Your task to perform on an android device: Find coffee shops on Maps Image 0: 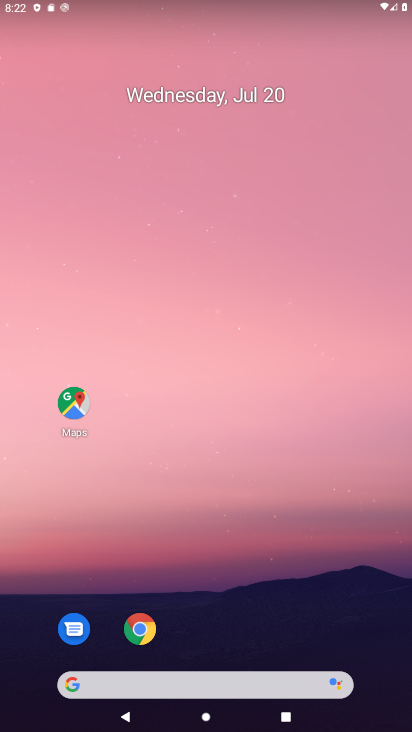
Step 0: drag from (243, 698) to (160, 150)
Your task to perform on an android device: Find coffee shops on Maps Image 1: 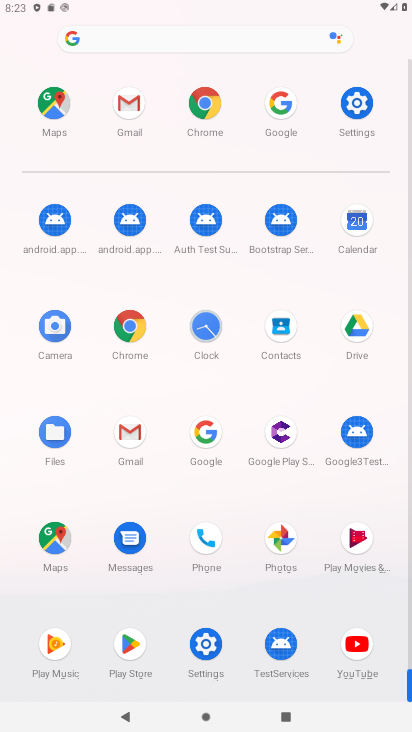
Step 1: click (57, 534)
Your task to perform on an android device: Find coffee shops on Maps Image 2: 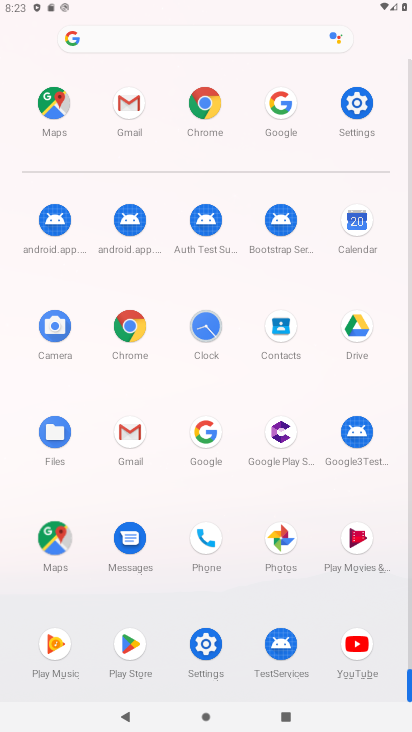
Step 2: click (58, 545)
Your task to perform on an android device: Find coffee shops on Maps Image 3: 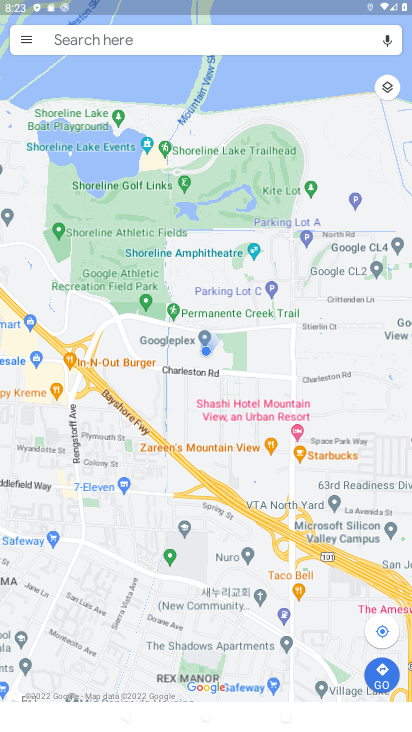
Step 3: click (100, 42)
Your task to perform on an android device: Find coffee shops on Maps Image 4: 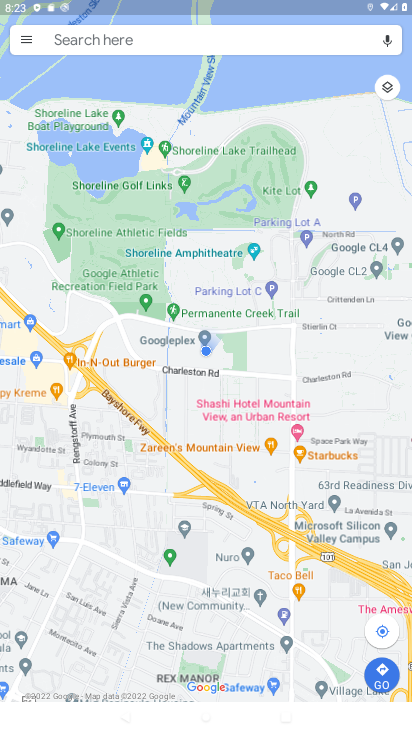
Step 4: click (101, 48)
Your task to perform on an android device: Find coffee shops on Maps Image 5: 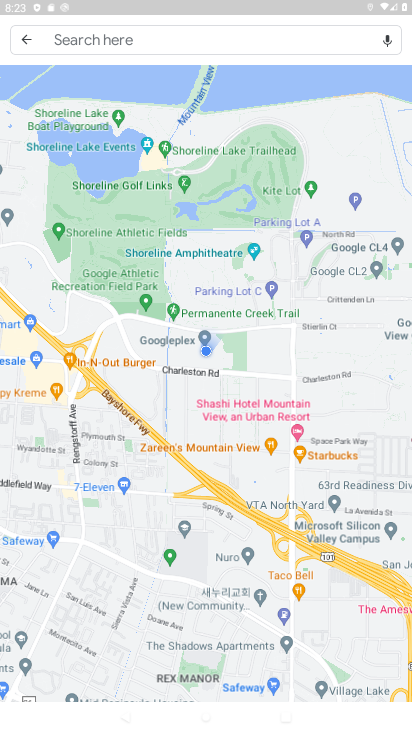
Step 5: click (91, 27)
Your task to perform on an android device: Find coffee shops on Maps Image 6: 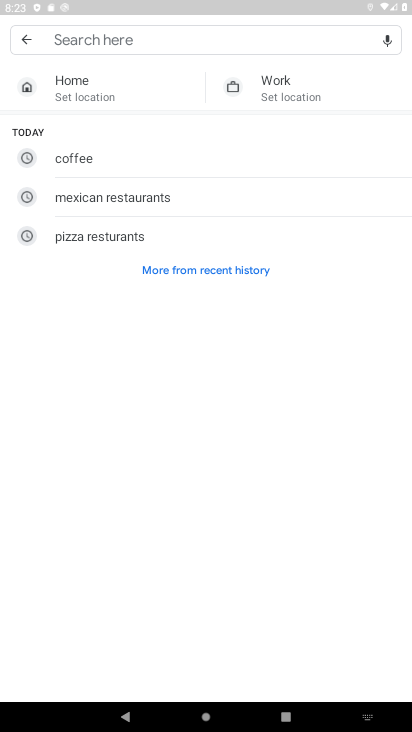
Step 6: click (97, 40)
Your task to perform on an android device: Find coffee shops on Maps Image 7: 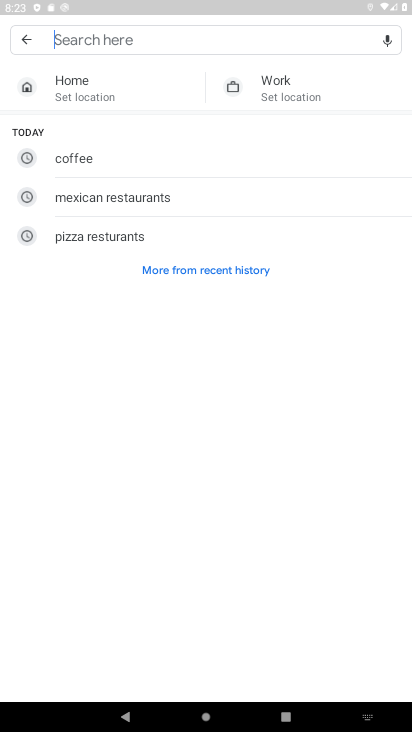
Step 7: click (85, 166)
Your task to perform on an android device: Find coffee shops on Maps Image 8: 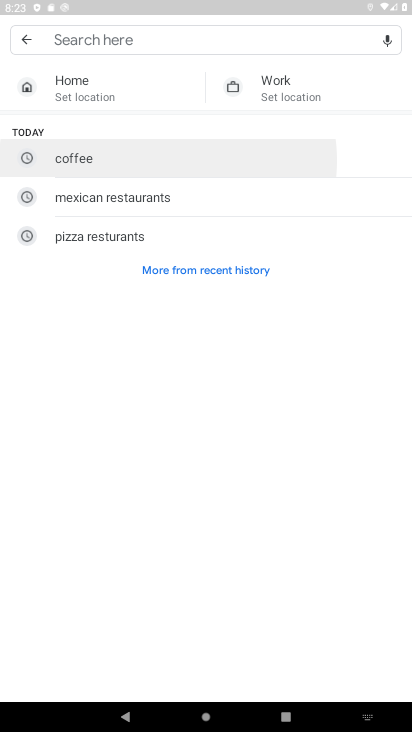
Step 8: click (84, 164)
Your task to perform on an android device: Find coffee shops on Maps Image 9: 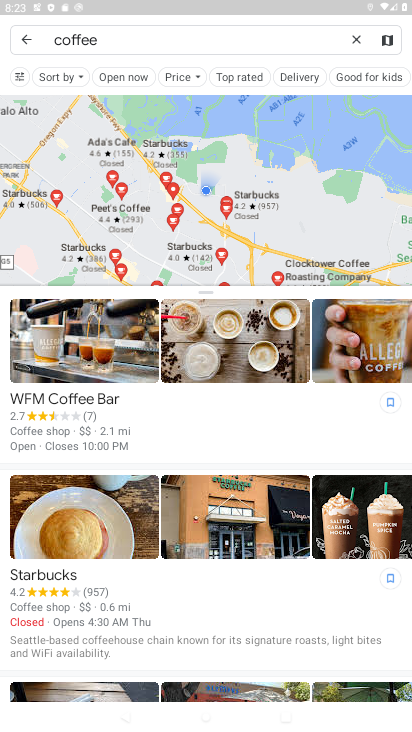
Step 9: task complete